Your task to perform on an android device: open the mobile data screen to see how much data has been used Image 0: 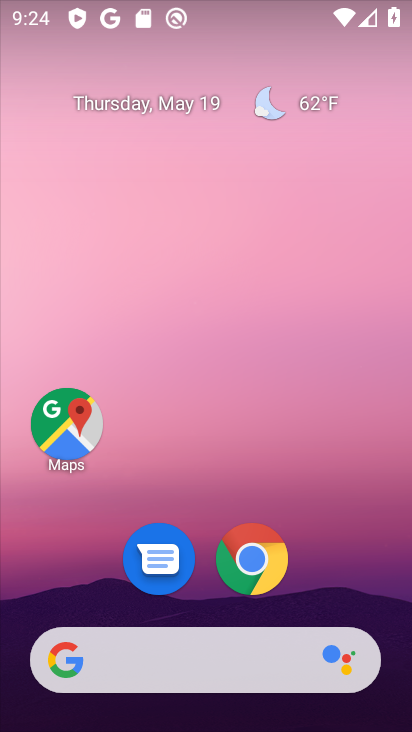
Step 0: drag from (287, 500) to (218, 115)
Your task to perform on an android device: open the mobile data screen to see how much data has been used Image 1: 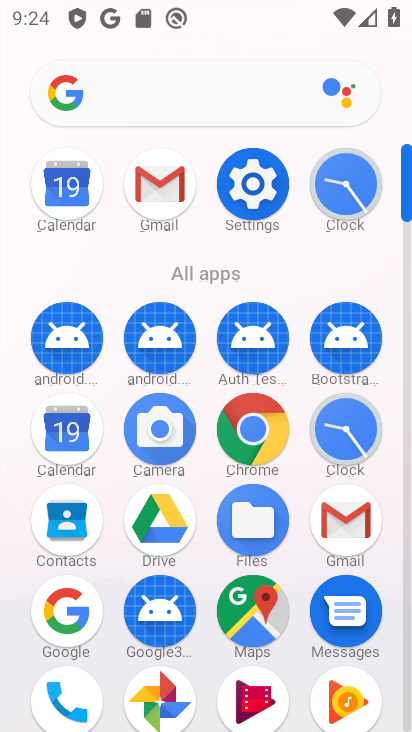
Step 1: click (232, 191)
Your task to perform on an android device: open the mobile data screen to see how much data has been used Image 2: 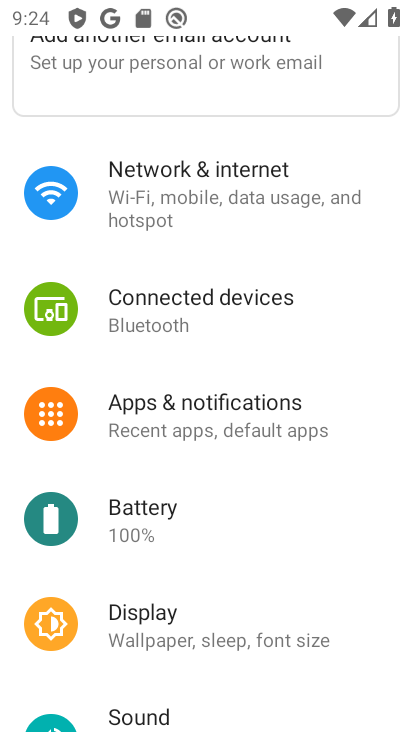
Step 2: click (233, 171)
Your task to perform on an android device: open the mobile data screen to see how much data has been used Image 3: 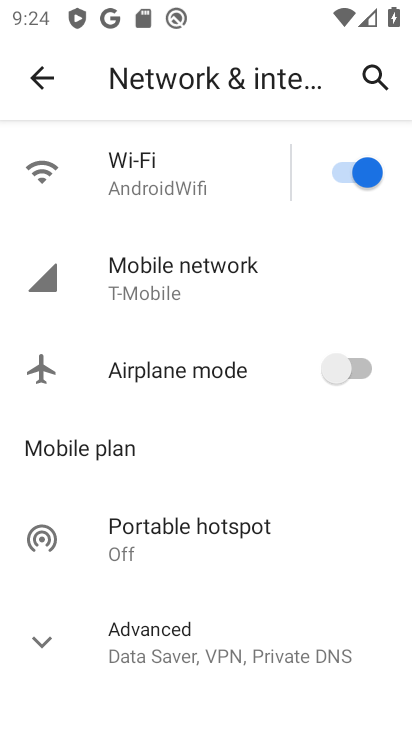
Step 3: click (169, 269)
Your task to perform on an android device: open the mobile data screen to see how much data has been used Image 4: 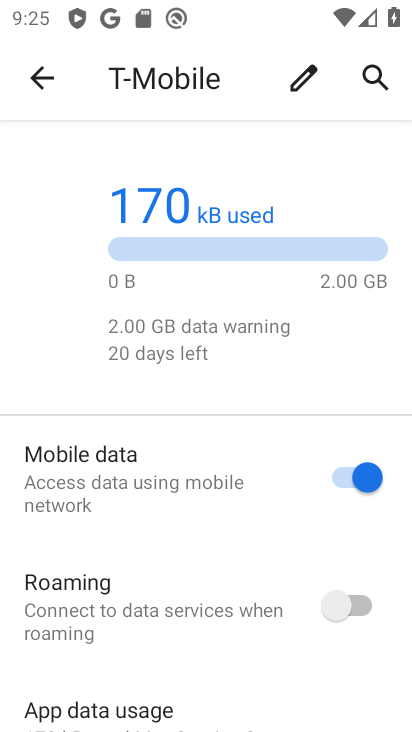
Step 4: task complete